Your task to perform on an android device: Show me popular games on the Play Store Image 0: 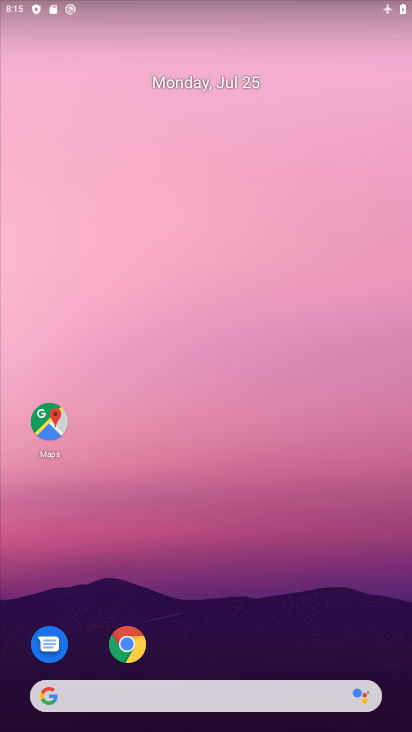
Step 0: drag from (271, 595) to (252, 54)
Your task to perform on an android device: Show me popular games on the Play Store Image 1: 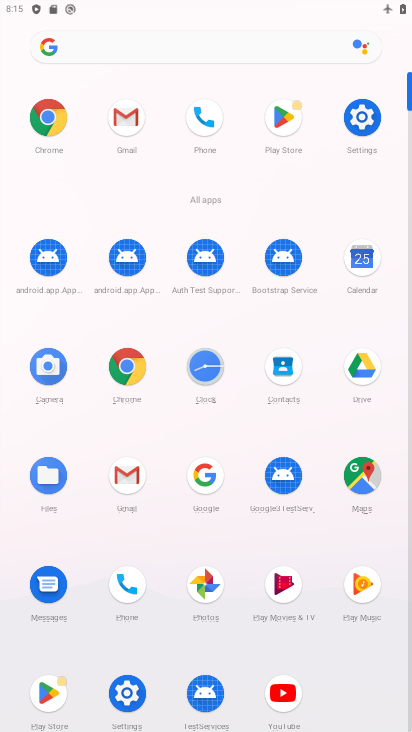
Step 1: click (285, 110)
Your task to perform on an android device: Show me popular games on the Play Store Image 2: 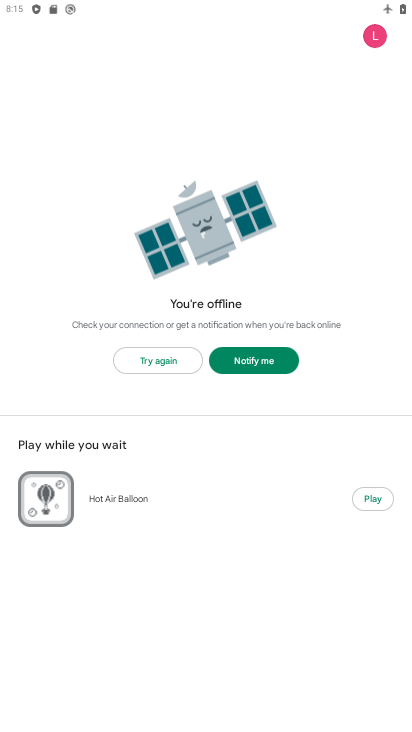
Step 2: task complete